Your task to perform on an android device: turn pop-ups off in chrome Image 0: 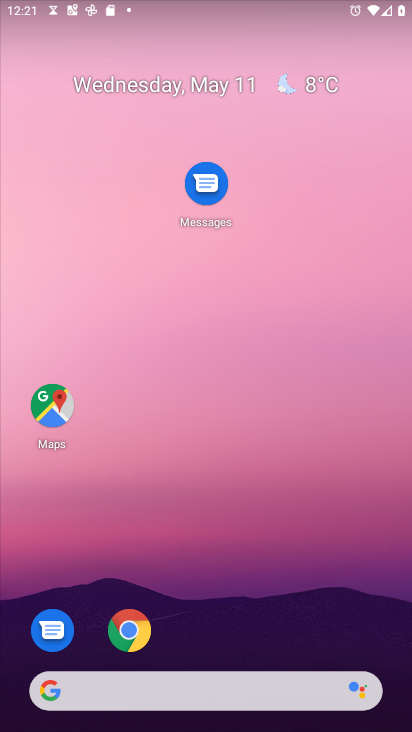
Step 0: click (122, 630)
Your task to perform on an android device: turn pop-ups off in chrome Image 1: 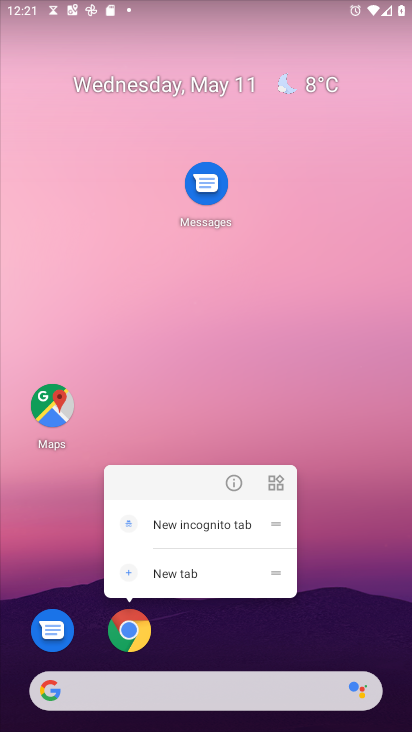
Step 1: click (126, 635)
Your task to perform on an android device: turn pop-ups off in chrome Image 2: 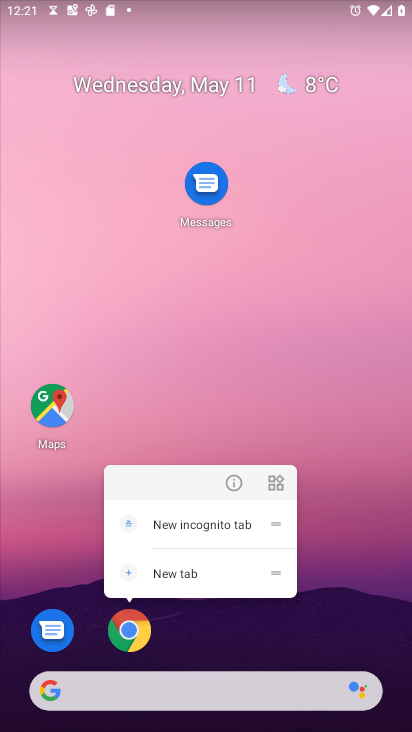
Step 2: click (126, 635)
Your task to perform on an android device: turn pop-ups off in chrome Image 3: 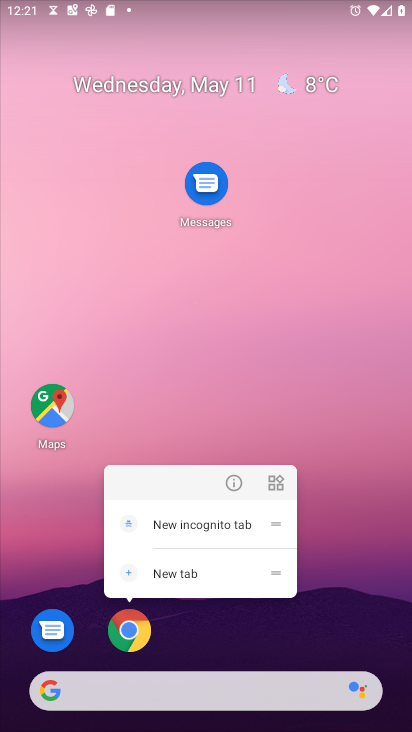
Step 3: click (126, 634)
Your task to perform on an android device: turn pop-ups off in chrome Image 4: 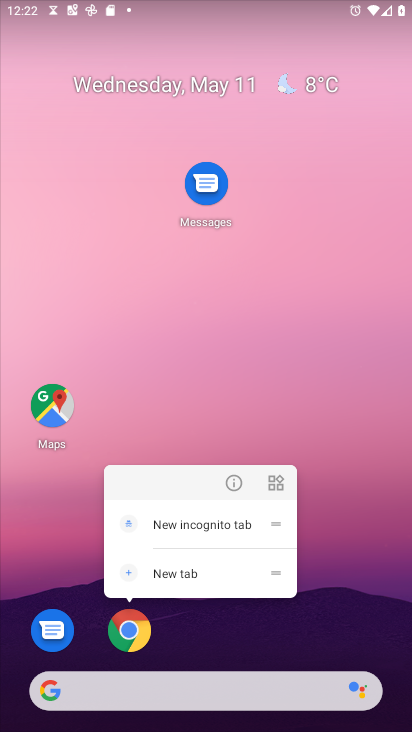
Step 4: click (128, 632)
Your task to perform on an android device: turn pop-ups off in chrome Image 5: 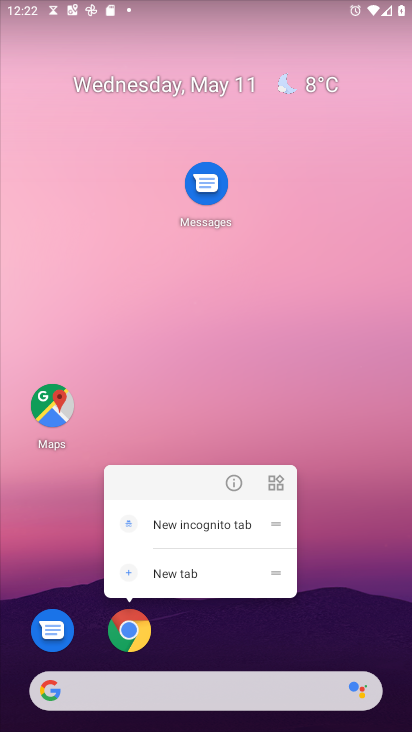
Step 5: click (127, 631)
Your task to perform on an android device: turn pop-ups off in chrome Image 6: 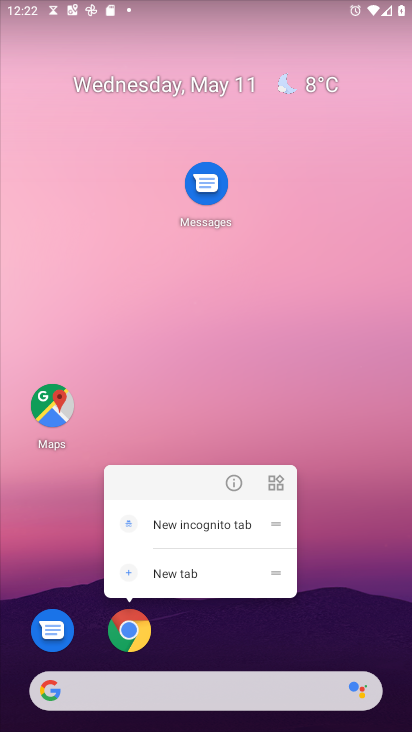
Step 6: click (127, 631)
Your task to perform on an android device: turn pop-ups off in chrome Image 7: 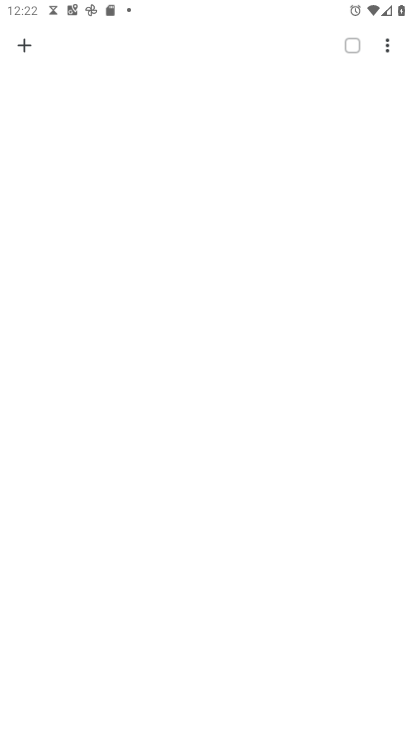
Step 7: click (382, 44)
Your task to perform on an android device: turn pop-ups off in chrome Image 8: 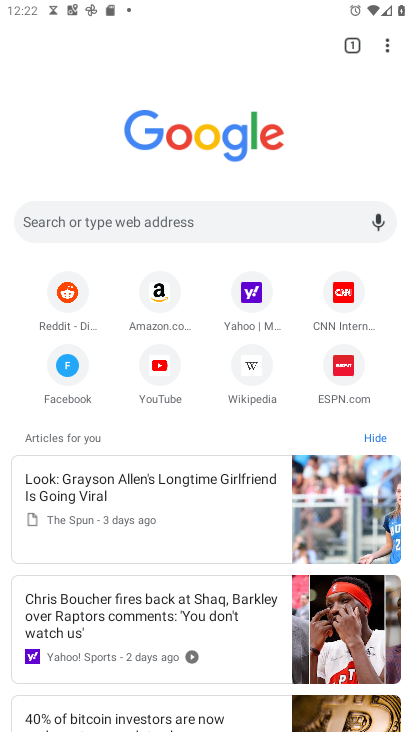
Step 8: click (389, 48)
Your task to perform on an android device: turn pop-ups off in chrome Image 9: 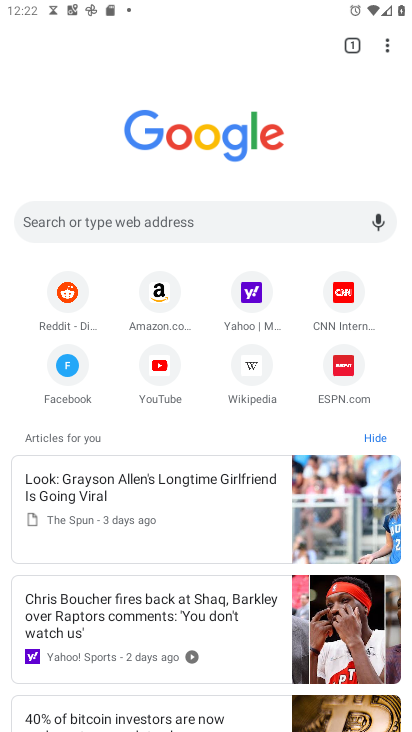
Step 9: click (390, 44)
Your task to perform on an android device: turn pop-ups off in chrome Image 10: 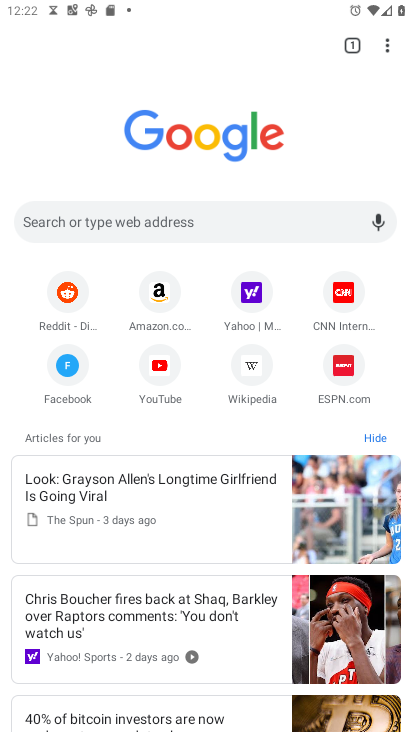
Step 10: click (389, 42)
Your task to perform on an android device: turn pop-ups off in chrome Image 11: 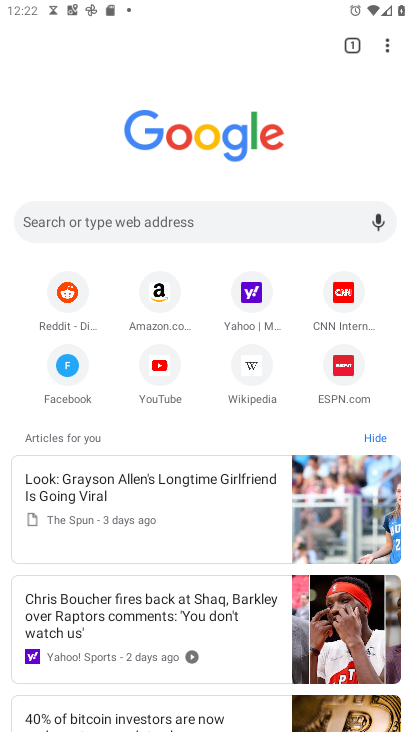
Step 11: click (384, 46)
Your task to perform on an android device: turn pop-ups off in chrome Image 12: 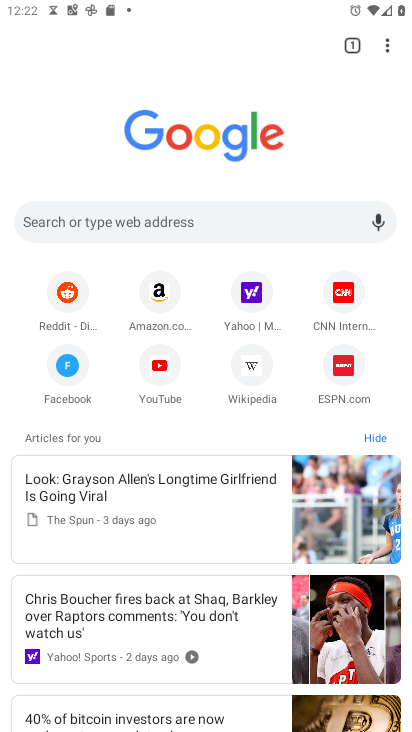
Step 12: click (384, 46)
Your task to perform on an android device: turn pop-ups off in chrome Image 13: 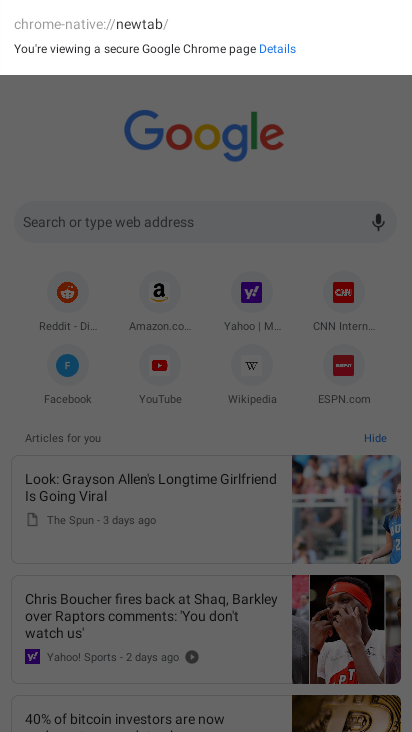
Step 13: click (320, 181)
Your task to perform on an android device: turn pop-ups off in chrome Image 14: 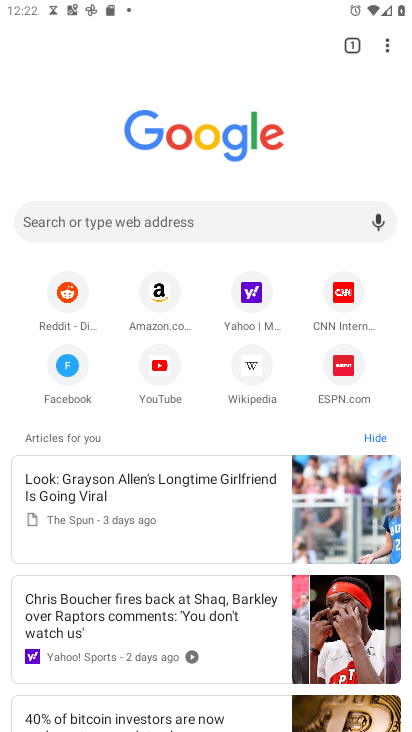
Step 14: click (387, 41)
Your task to perform on an android device: turn pop-ups off in chrome Image 15: 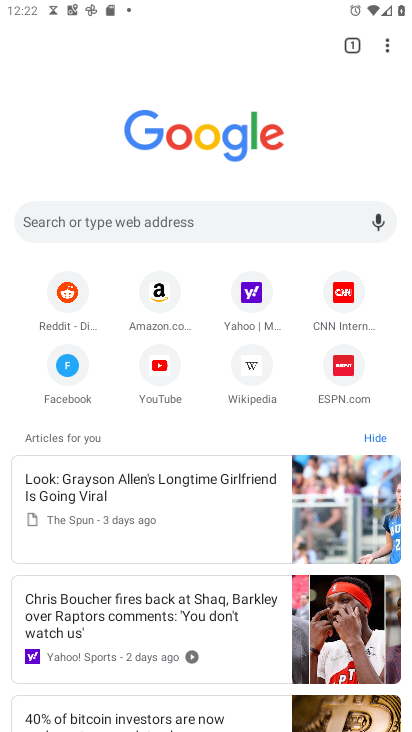
Step 15: click (387, 41)
Your task to perform on an android device: turn pop-ups off in chrome Image 16: 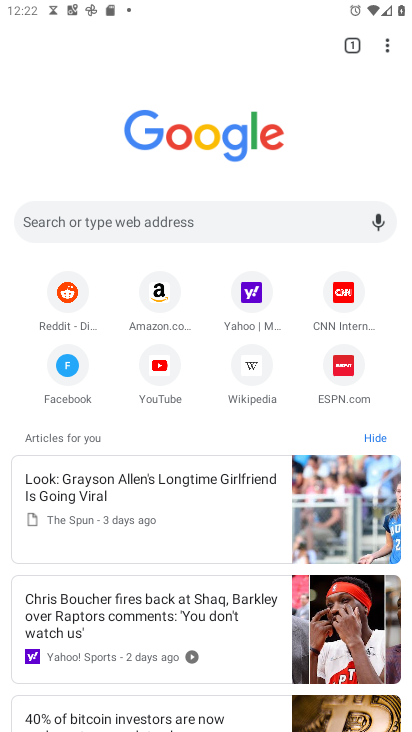
Step 16: click (387, 41)
Your task to perform on an android device: turn pop-ups off in chrome Image 17: 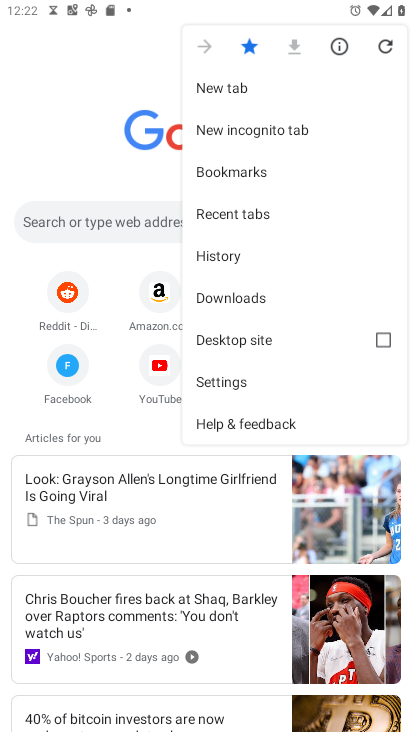
Step 17: click (353, 381)
Your task to perform on an android device: turn pop-ups off in chrome Image 18: 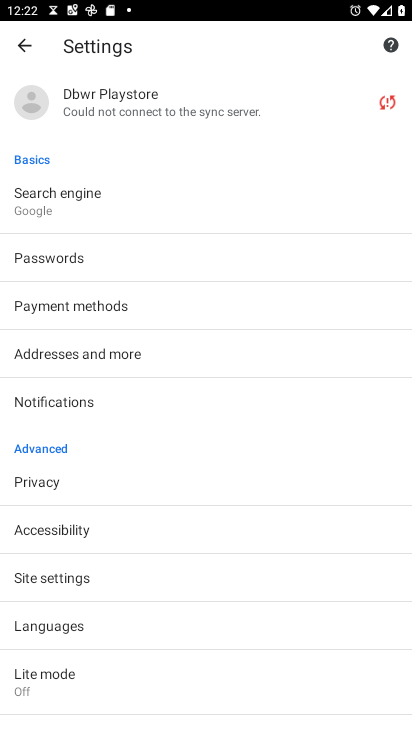
Step 18: click (133, 584)
Your task to perform on an android device: turn pop-ups off in chrome Image 19: 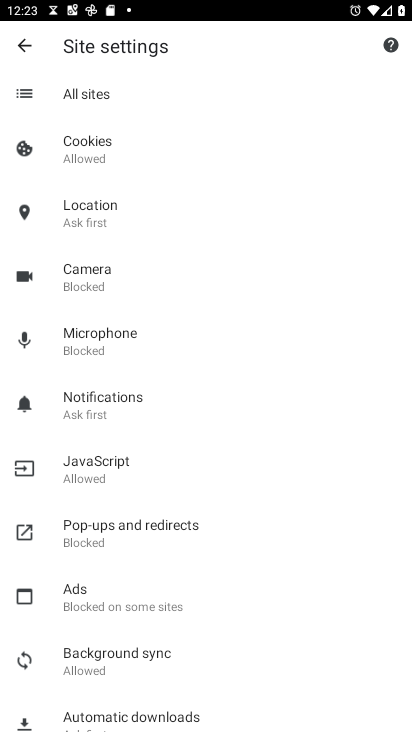
Step 19: drag from (189, 568) to (189, 253)
Your task to perform on an android device: turn pop-ups off in chrome Image 20: 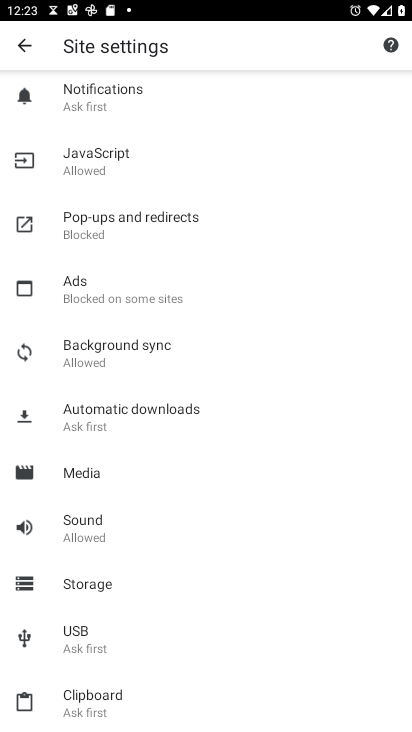
Step 20: drag from (201, 492) to (203, 162)
Your task to perform on an android device: turn pop-ups off in chrome Image 21: 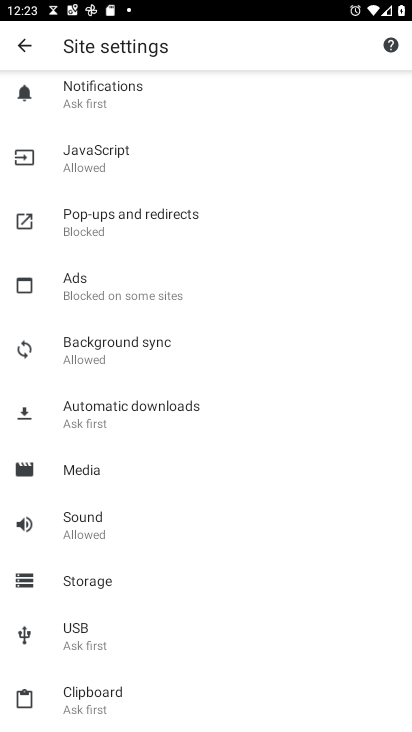
Step 21: drag from (194, 171) to (233, 654)
Your task to perform on an android device: turn pop-ups off in chrome Image 22: 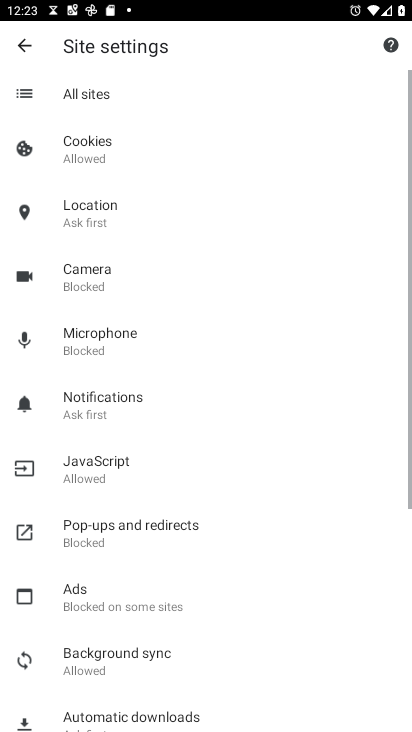
Step 22: drag from (256, 620) to (306, 281)
Your task to perform on an android device: turn pop-ups off in chrome Image 23: 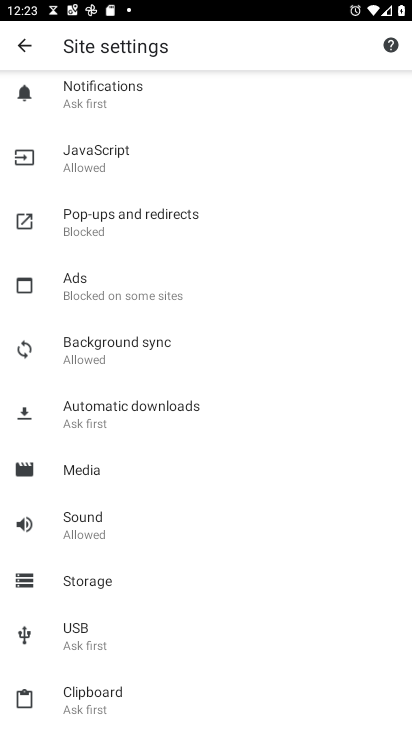
Step 23: click (237, 221)
Your task to perform on an android device: turn pop-ups off in chrome Image 24: 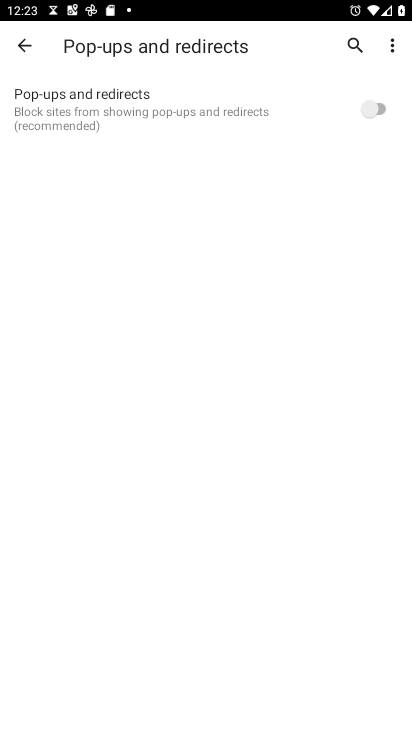
Step 24: click (384, 103)
Your task to perform on an android device: turn pop-ups off in chrome Image 25: 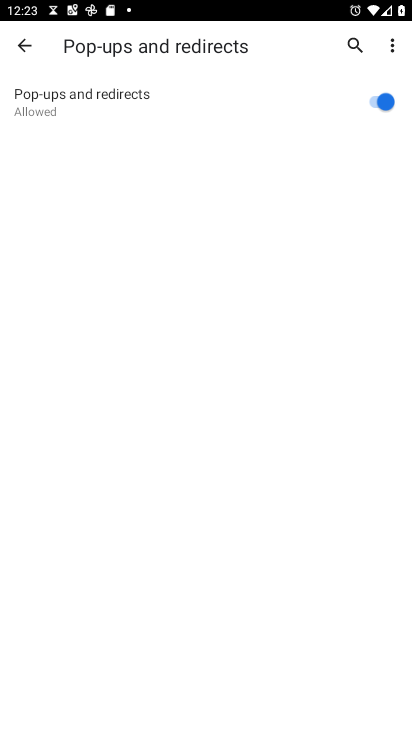
Step 25: task complete